Your task to perform on an android device: Open the Play Movies app and select the watchlist tab. Image 0: 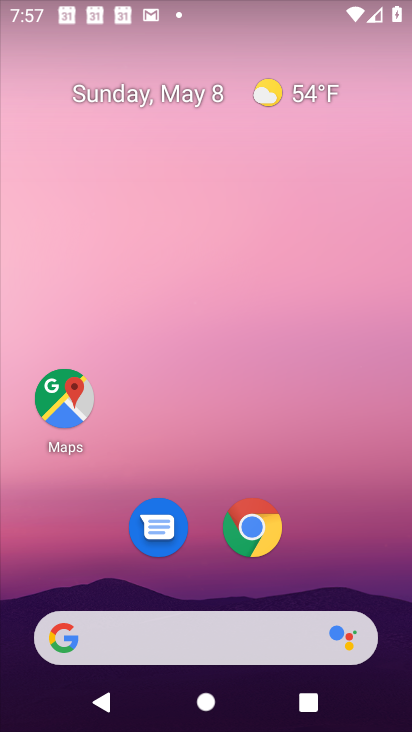
Step 0: drag from (303, 570) to (245, 193)
Your task to perform on an android device: Open the Play Movies app and select the watchlist tab. Image 1: 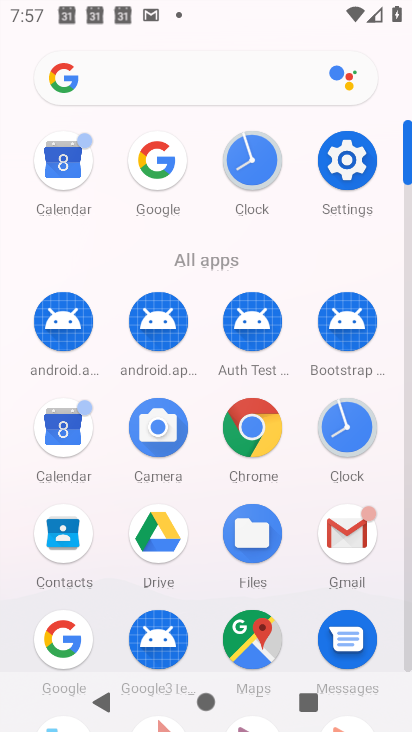
Step 1: drag from (196, 600) to (200, 301)
Your task to perform on an android device: Open the Play Movies app and select the watchlist tab. Image 2: 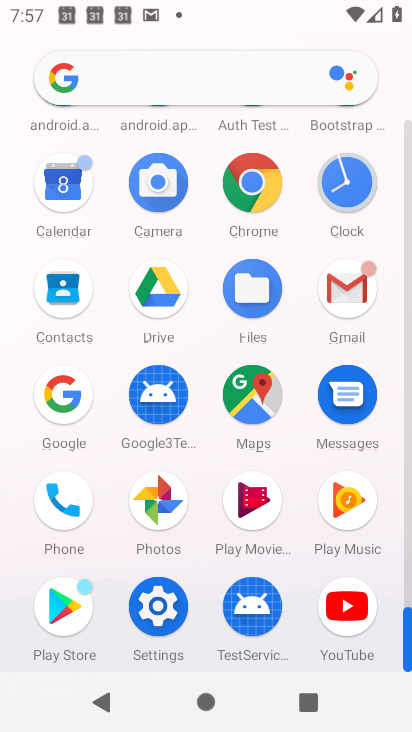
Step 2: click (264, 519)
Your task to perform on an android device: Open the Play Movies app and select the watchlist tab. Image 3: 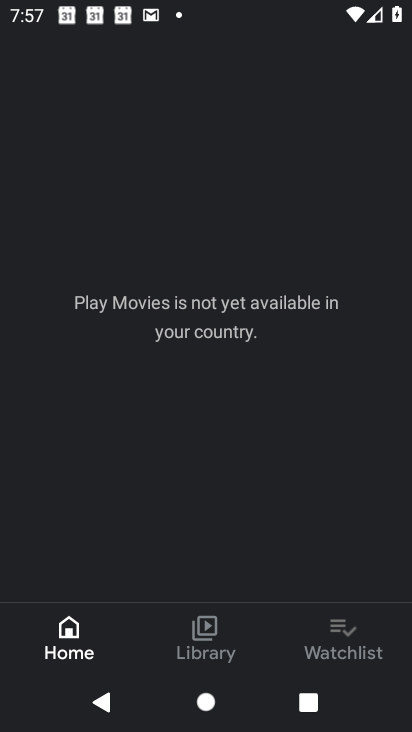
Step 3: click (334, 651)
Your task to perform on an android device: Open the Play Movies app and select the watchlist tab. Image 4: 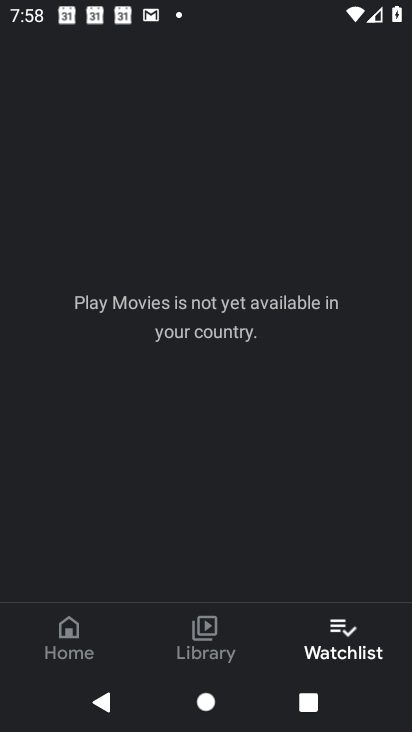
Step 4: task complete